Your task to perform on an android device: Open eBay Image 0: 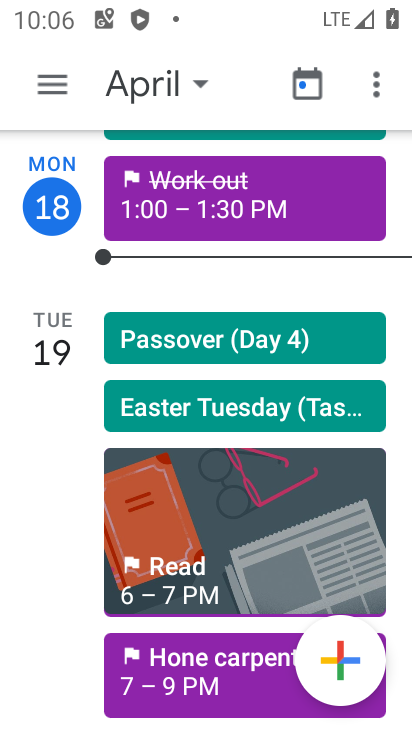
Step 0: press home button
Your task to perform on an android device: Open eBay Image 1: 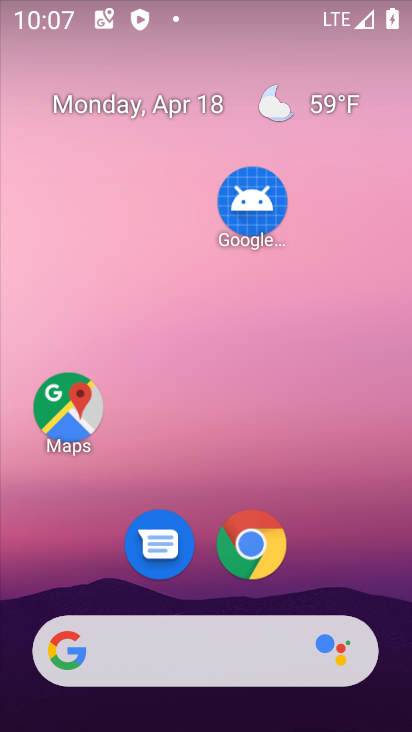
Step 1: drag from (320, 581) to (342, 197)
Your task to perform on an android device: Open eBay Image 2: 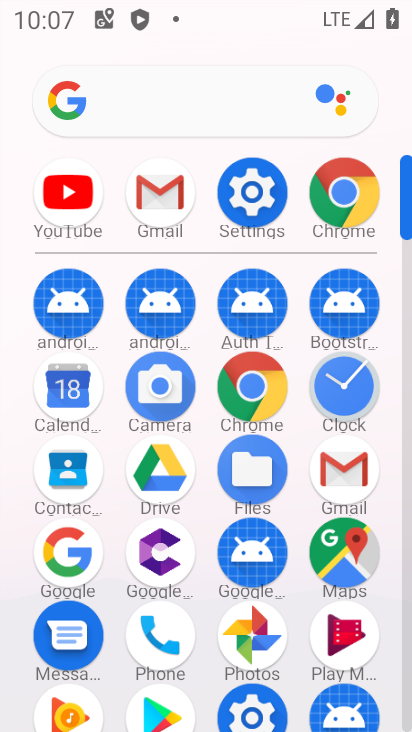
Step 2: click (250, 381)
Your task to perform on an android device: Open eBay Image 3: 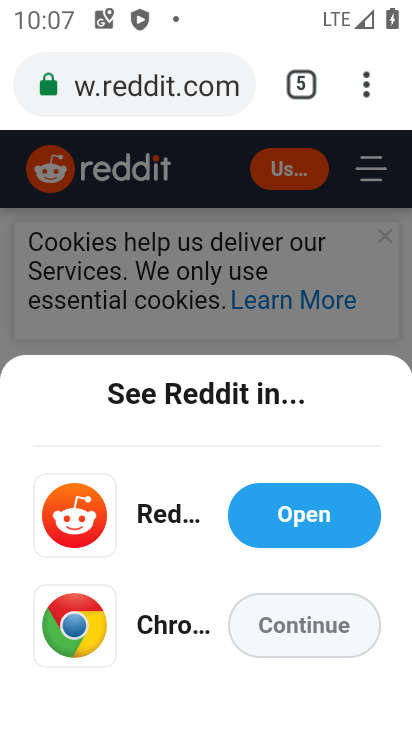
Step 3: click (368, 87)
Your task to perform on an android device: Open eBay Image 4: 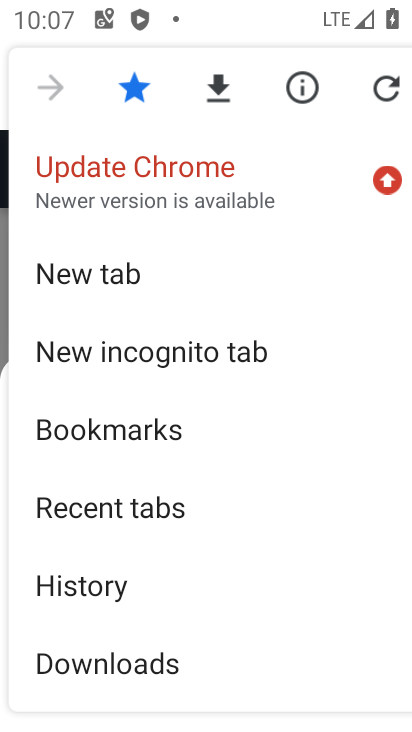
Step 4: click (173, 257)
Your task to perform on an android device: Open eBay Image 5: 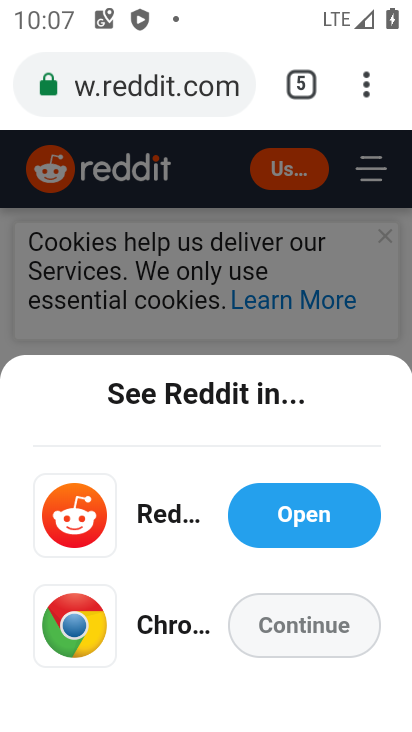
Step 5: click (165, 279)
Your task to perform on an android device: Open eBay Image 6: 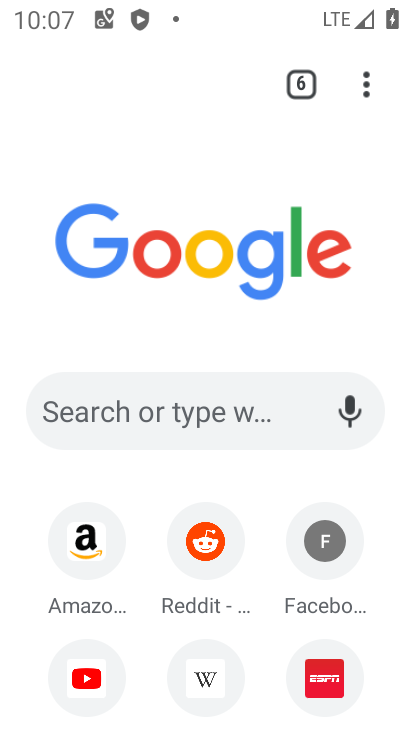
Step 6: drag from (361, 591) to (382, 159)
Your task to perform on an android device: Open eBay Image 7: 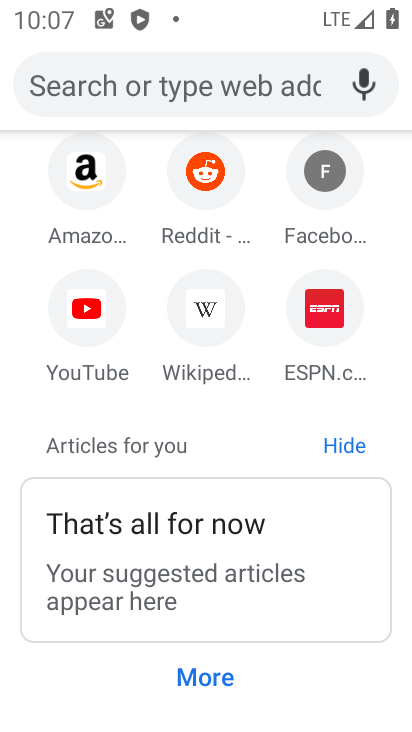
Step 7: click (196, 79)
Your task to perform on an android device: Open eBay Image 8: 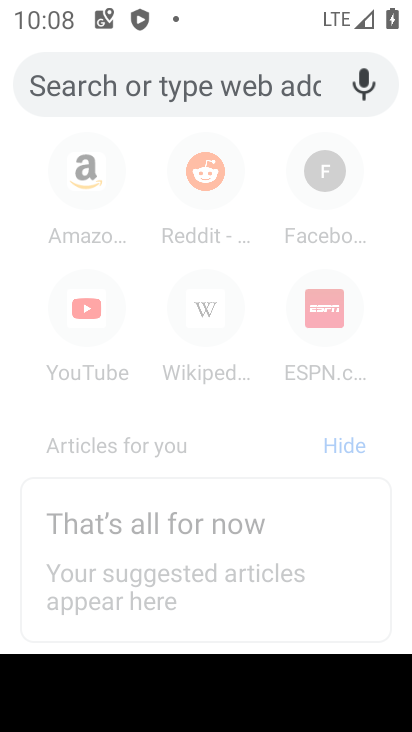
Step 8: type "eBay"
Your task to perform on an android device: Open eBay Image 9: 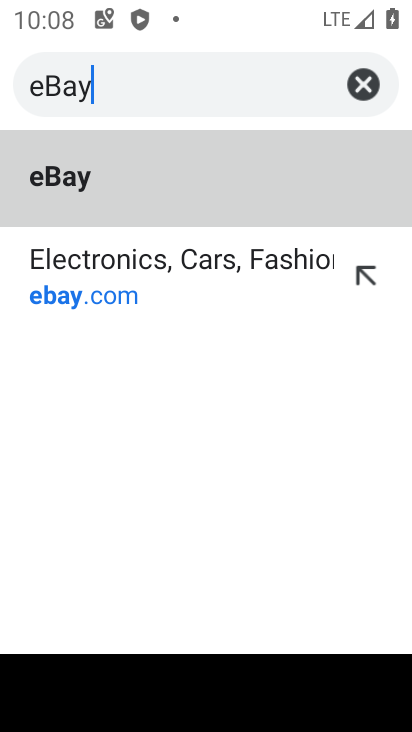
Step 9: click (220, 186)
Your task to perform on an android device: Open eBay Image 10: 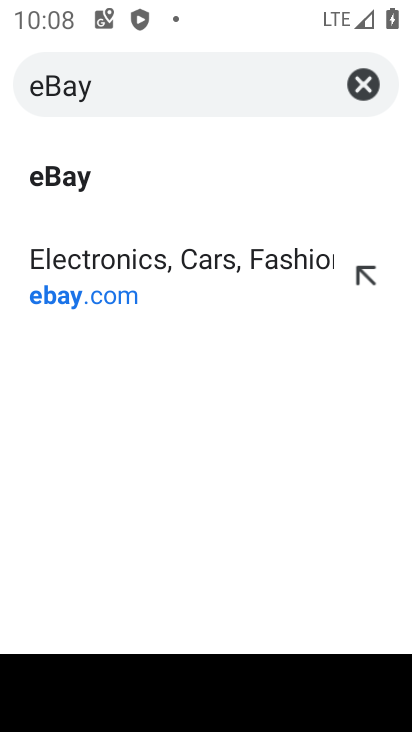
Step 10: click (134, 292)
Your task to perform on an android device: Open eBay Image 11: 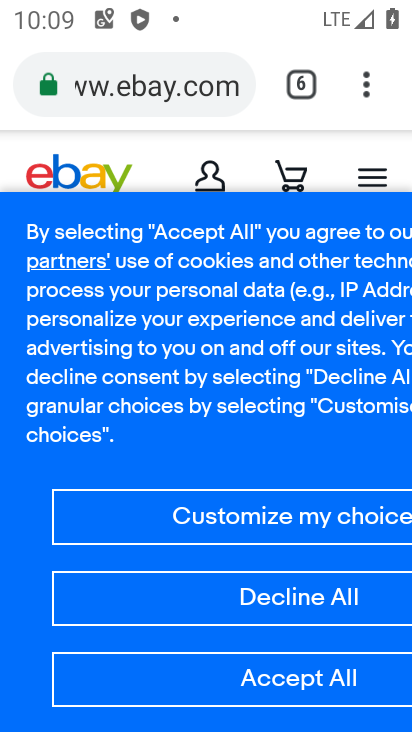
Step 11: task complete